Your task to perform on an android device: Go to sound settings Image 0: 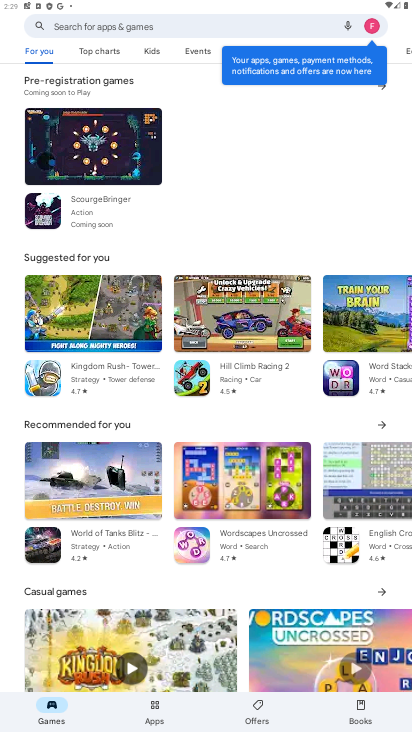
Step 0: press home button
Your task to perform on an android device: Go to sound settings Image 1: 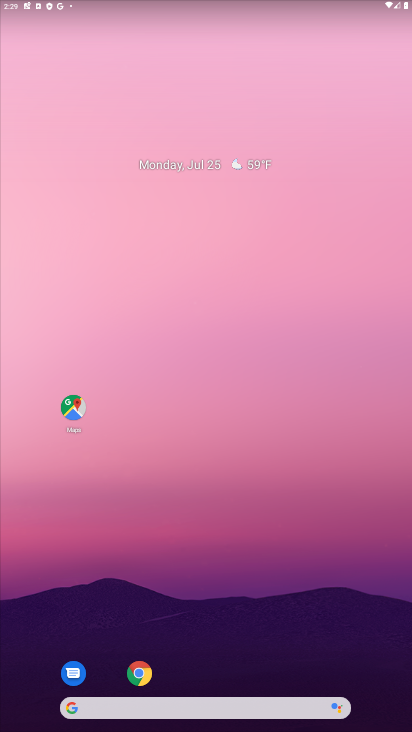
Step 1: drag from (182, 672) to (182, 78)
Your task to perform on an android device: Go to sound settings Image 2: 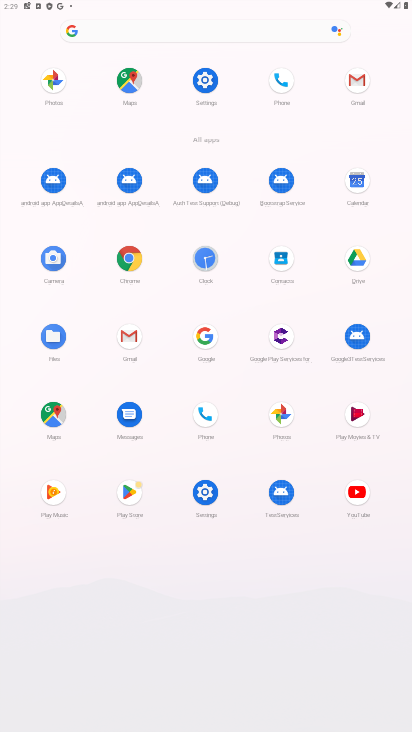
Step 2: click (212, 76)
Your task to perform on an android device: Go to sound settings Image 3: 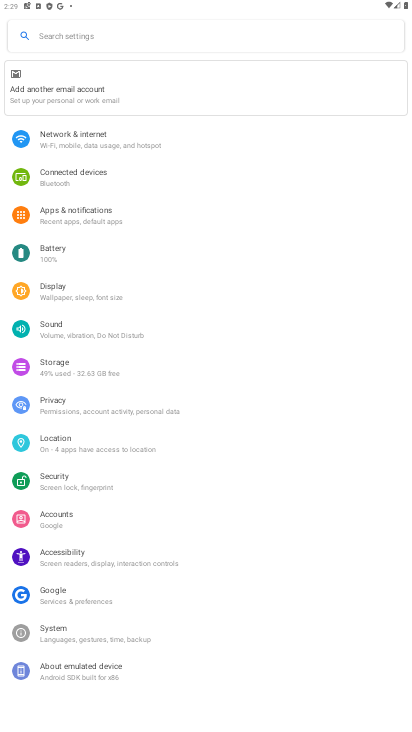
Step 3: click (71, 337)
Your task to perform on an android device: Go to sound settings Image 4: 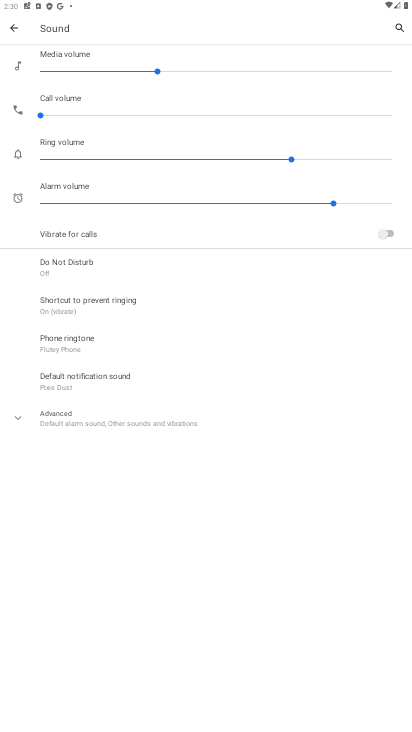
Step 4: task complete